Your task to perform on an android device: What's the weather going to be tomorrow? Image 0: 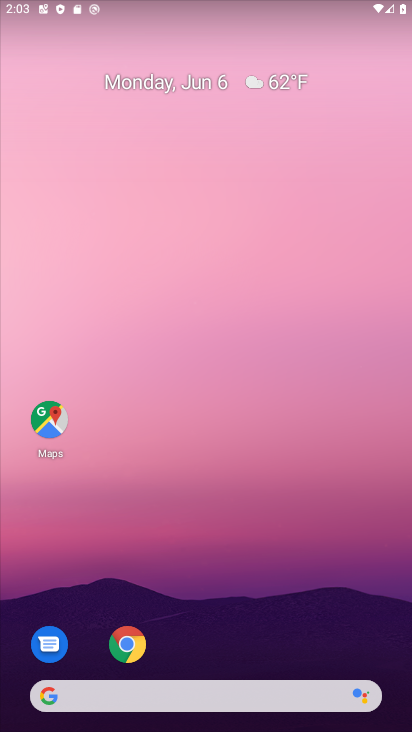
Step 0: click (152, 694)
Your task to perform on an android device: What's the weather going to be tomorrow? Image 1: 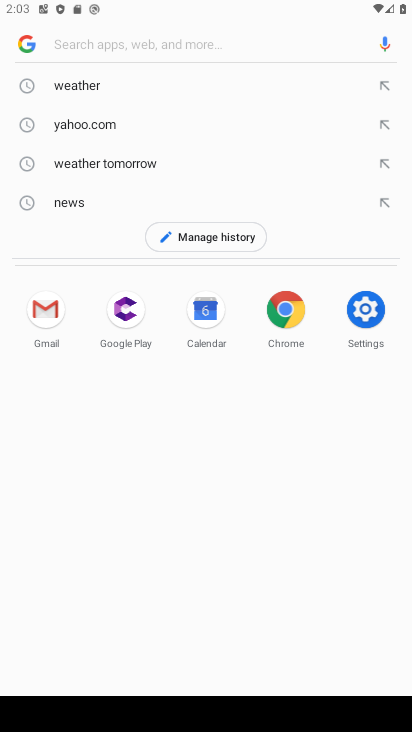
Step 1: click (142, 162)
Your task to perform on an android device: What's the weather going to be tomorrow? Image 2: 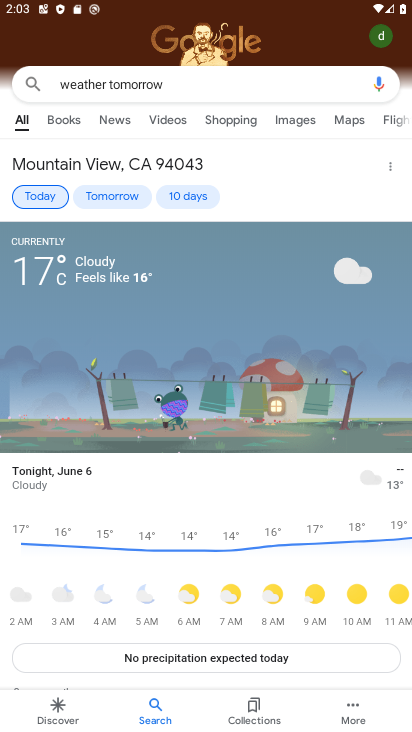
Step 2: task complete